Your task to perform on an android device: Show me popular videos on Youtube Image 0: 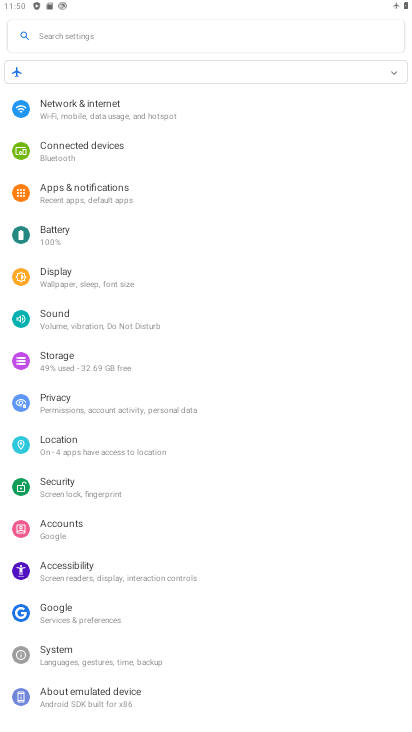
Step 0: press home button
Your task to perform on an android device: Show me popular videos on Youtube Image 1: 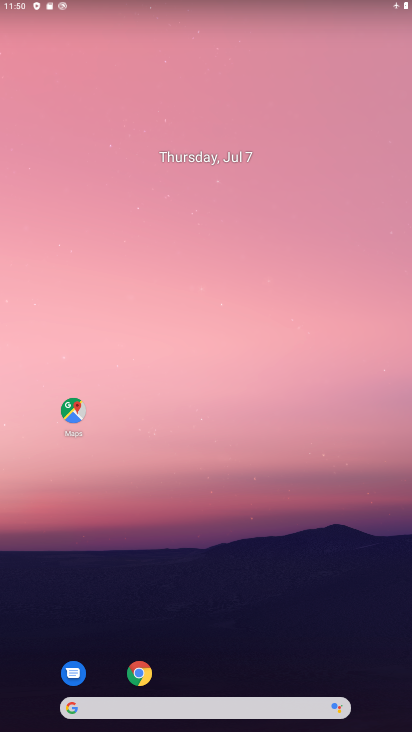
Step 1: drag from (285, 630) to (272, 287)
Your task to perform on an android device: Show me popular videos on Youtube Image 2: 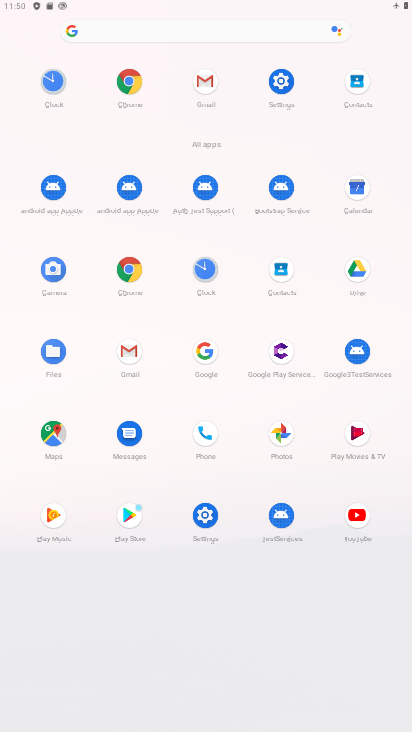
Step 2: click (357, 513)
Your task to perform on an android device: Show me popular videos on Youtube Image 3: 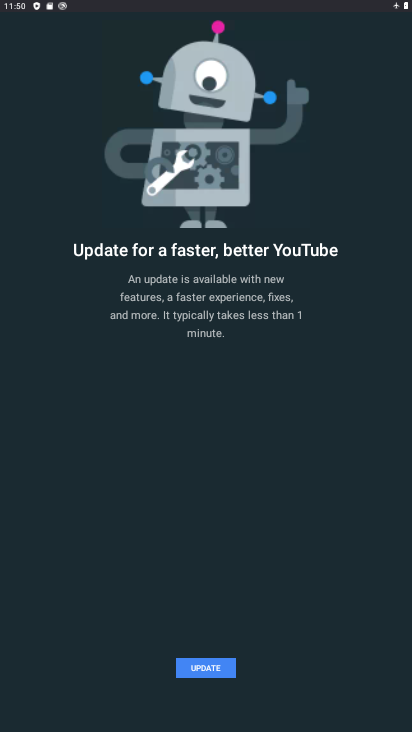
Step 3: click (204, 668)
Your task to perform on an android device: Show me popular videos on Youtube Image 4: 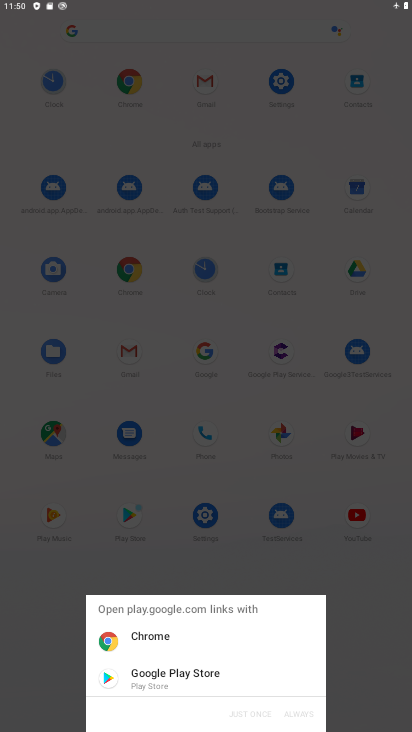
Step 4: click (168, 636)
Your task to perform on an android device: Show me popular videos on Youtube Image 5: 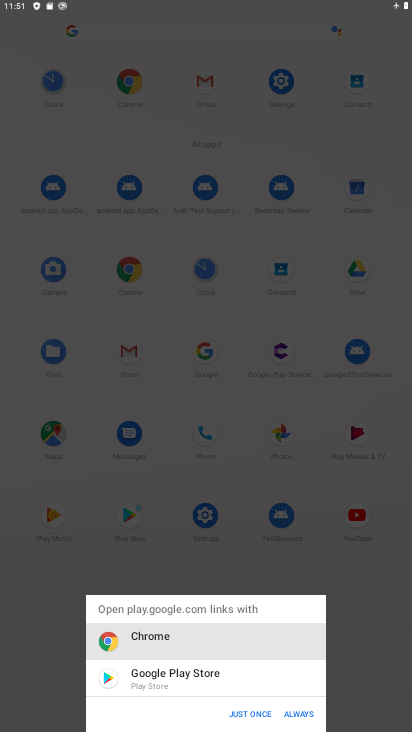
Step 5: click (293, 710)
Your task to perform on an android device: Show me popular videos on Youtube Image 6: 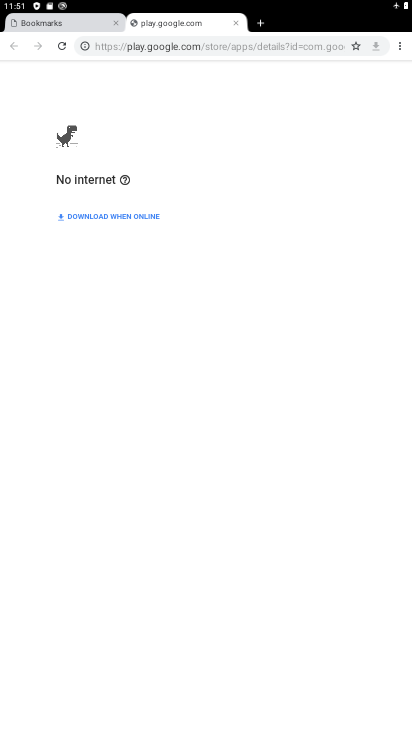
Step 6: click (236, 22)
Your task to perform on an android device: Show me popular videos on Youtube Image 7: 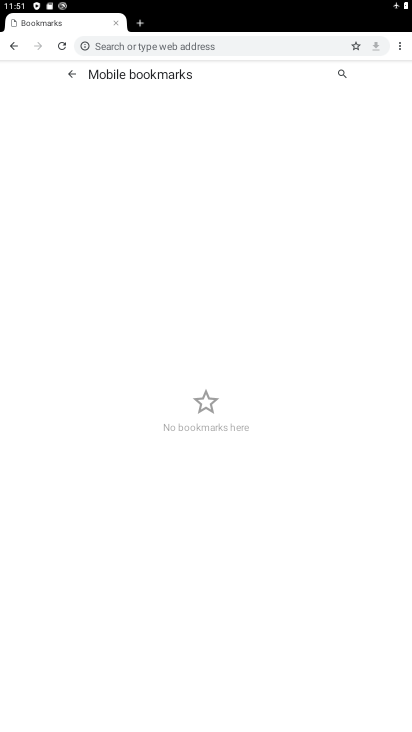
Step 7: click (116, 21)
Your task to perform on an android device: Show me popular videos on Youtube Image 8: 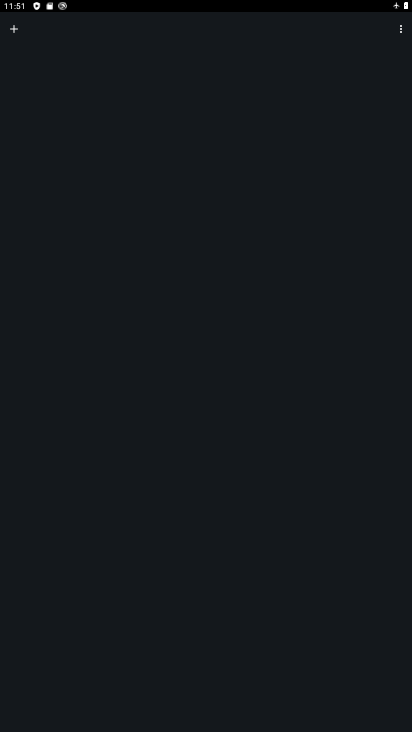
Step 8: task complete